Your task to perform on an android device: add a label to a message in the gmail app Image 0: 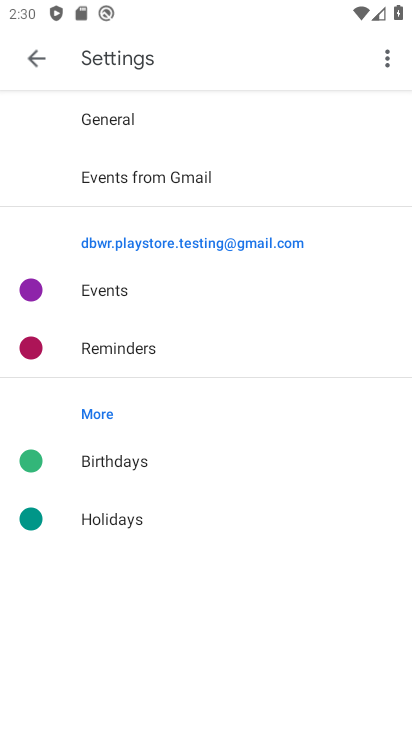
Step 0: press home button
Your task to perform on an android device: add a label to a message in the gmail app Image 1: 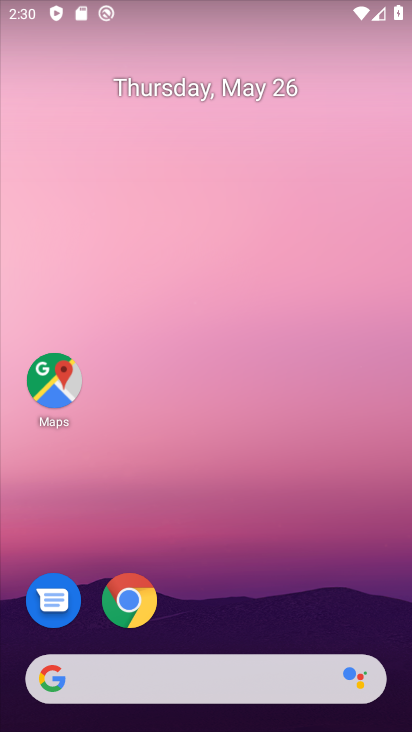
Step 1: drag from (249, 594) to (218, 205)
Your task to perform on an android device: add a label to a message in the gmail app Image 2: 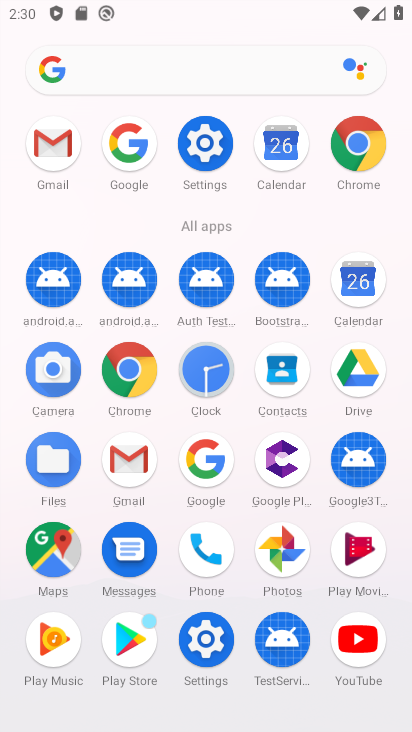
Step 2: click (129, 453)
Your task to perform on an android device: add a label to a message in the gmail app Image 3: 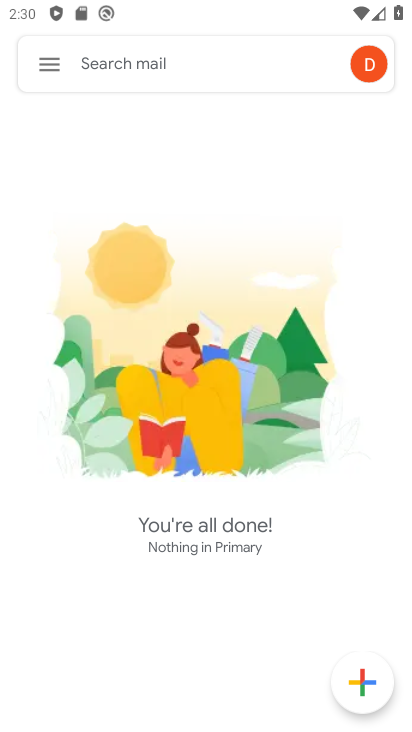
Step 3: click (40, 74)
Your task to perform on an android device: add a label to a message in the gmail app Image 4: 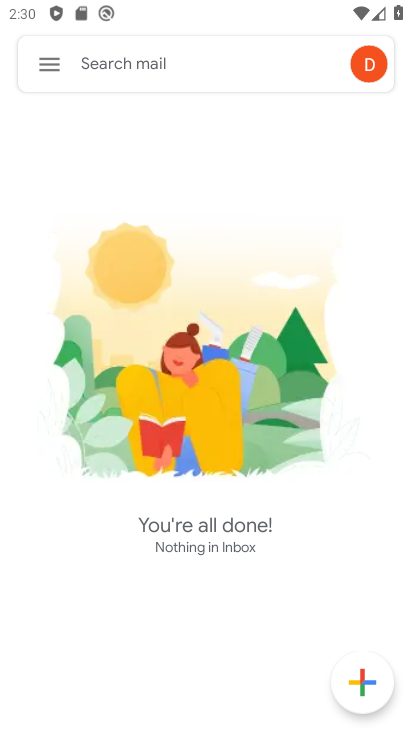
Step 4: click (57, 82)
Your task to perform on an android device: add a label to a message in the gmail app Image 5: 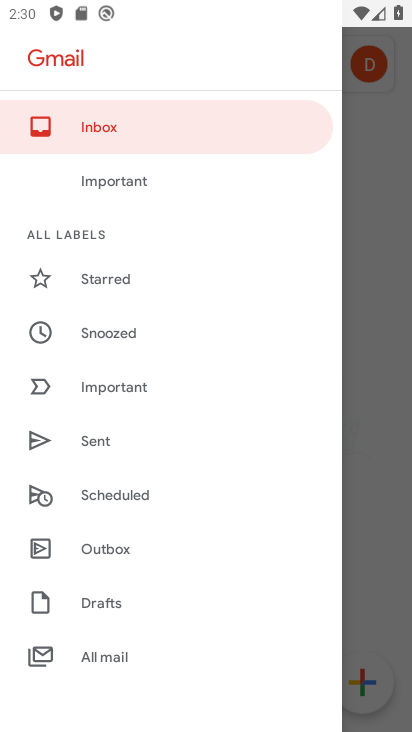
Step 5: drag from (135, 569) to (200, 158)
Your task to perform on an android device: add a label to a message in the gmail app Image 6: 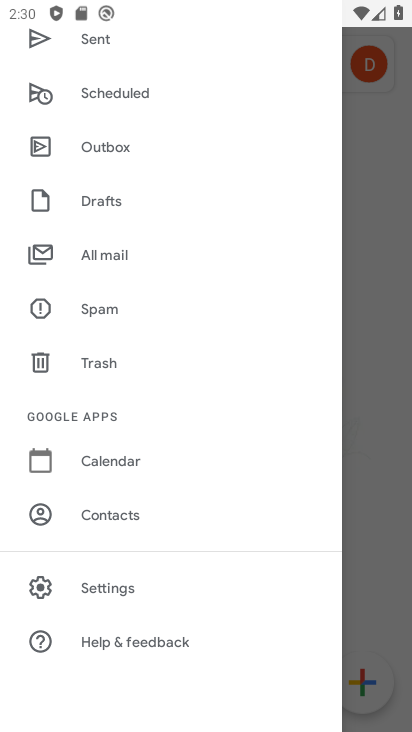
Step 6: click (121, 266)
Your task to perform on an android device: add a label to a message in the gmail app Image 7: 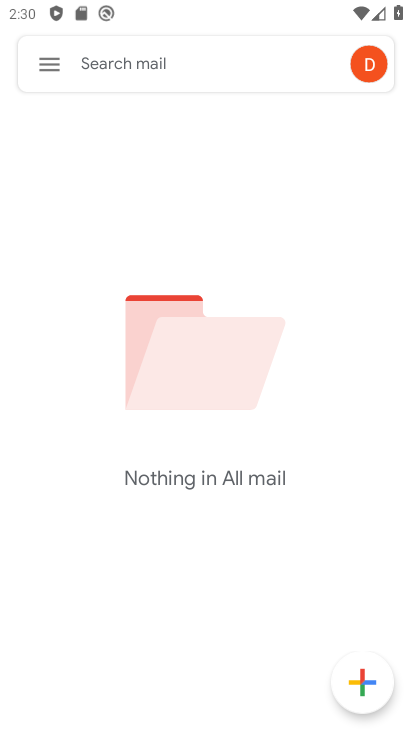
Step 7: task complete